Your task to perform on an android device: turn off sleep mode Image 0: 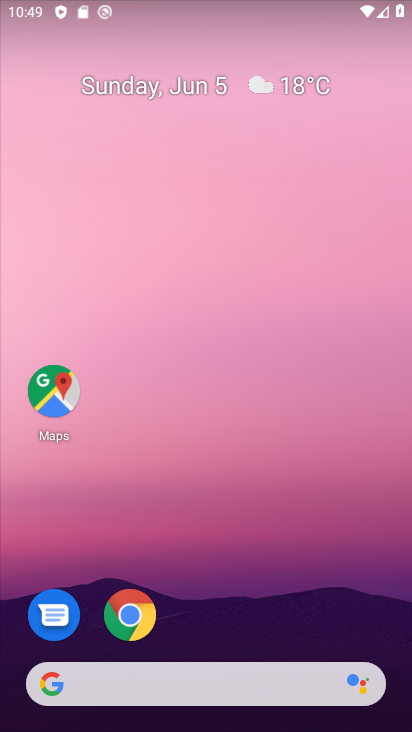
Step 0: drag from (306, 570) to (241, 146)
Your task to perform on an android device: turn off sleep mode Image 1: 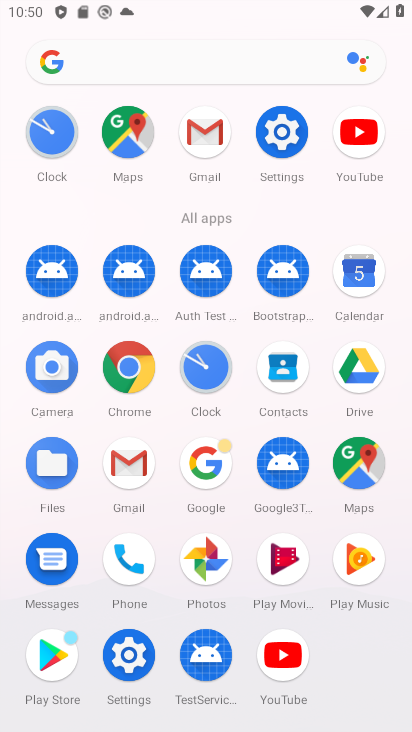
Step 1: click (281, 132)
Your task to perform on an android device: turn off sleep mode Image 2: 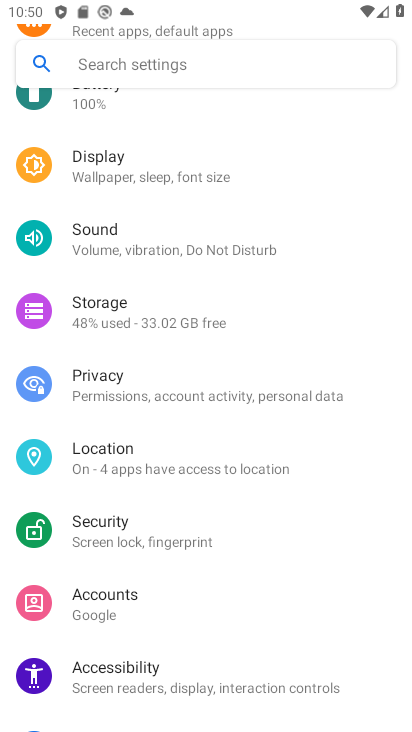
Step 2: click (176, 174)
Your task to perform on an android device: turn off sleep mode Image 3: 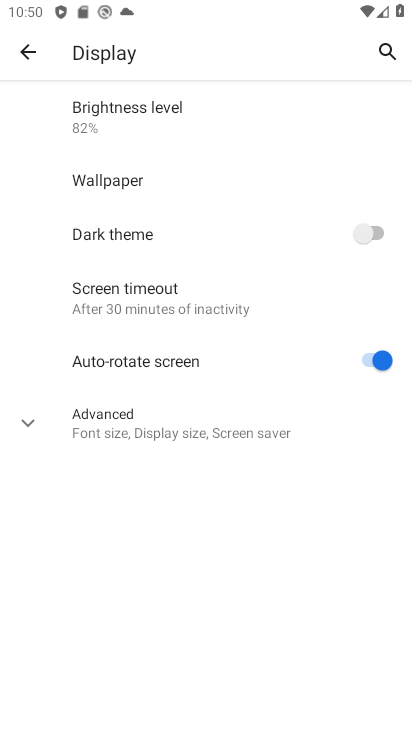
Step 3: click (160, 428)
Your task to perform on an android device: turn off sleep mode Image 4: 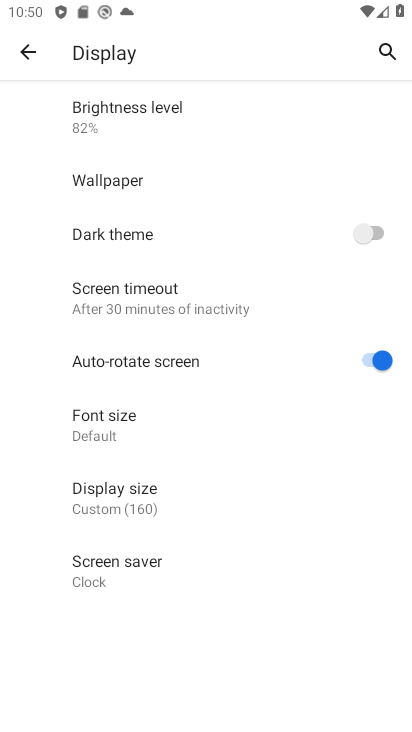
Step 4: click (150, 319)
Your task to perform on an android device: turn off sleep mode Image 5: 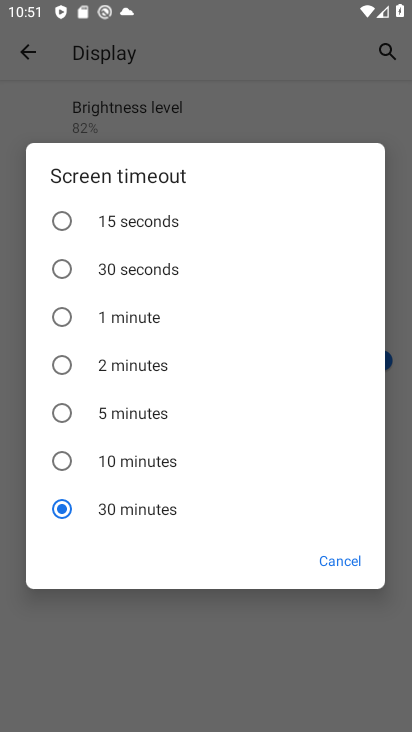
Step 5: task complete